Your task to perform on an android device: Search for vegetarian restaurants on Maps Image 0: 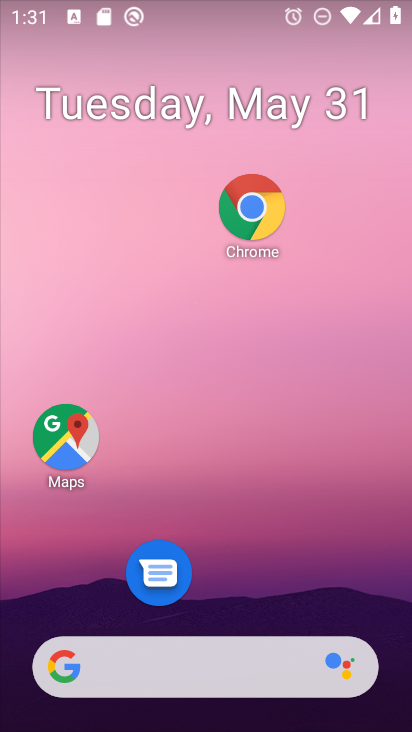
Step 0: drag from (255, 625) to (285, 329)
Your task to perform on an android device: Search for vegetarian restaurants on Maps Image 1: 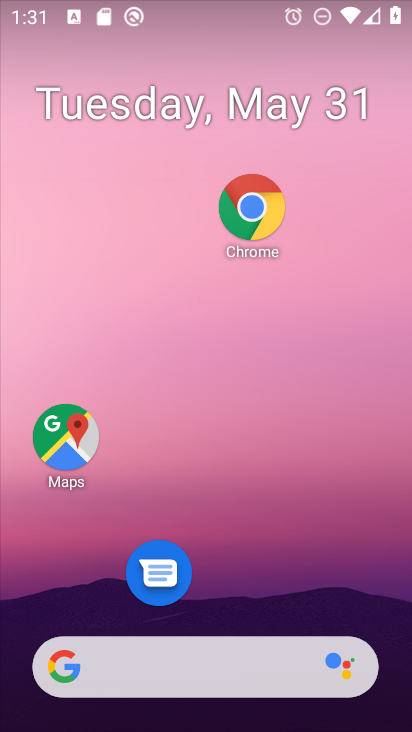
Step 1: drag from (261, 582) to (324, 138)
Your task to perform on an android device: Search for vegetarian restaurants on Maps Image 2: 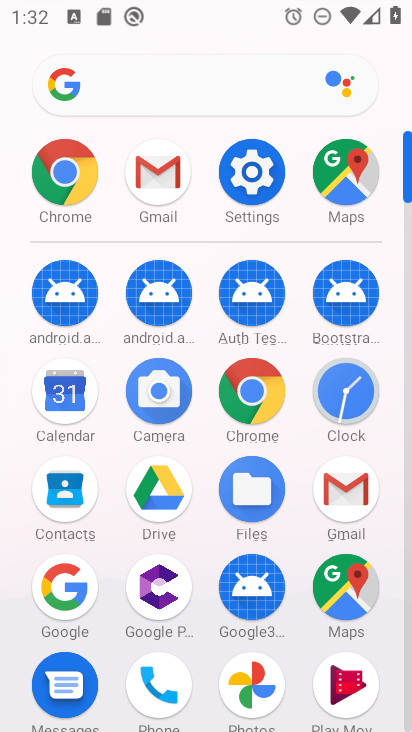
Step 2: click (353, 597)
Your task to perform on an android device: Search for vegetarian restaurants on Maps Image 3: 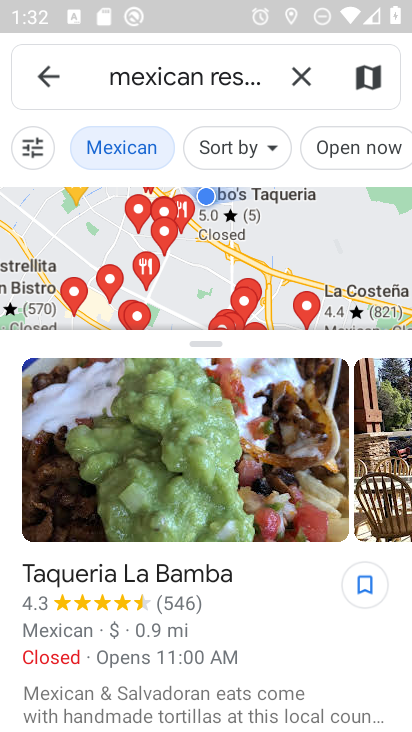
Step 3: click (304, 81)
Your task to perform on an android device: Search for vegetarian restaurants on Maps Image 4: 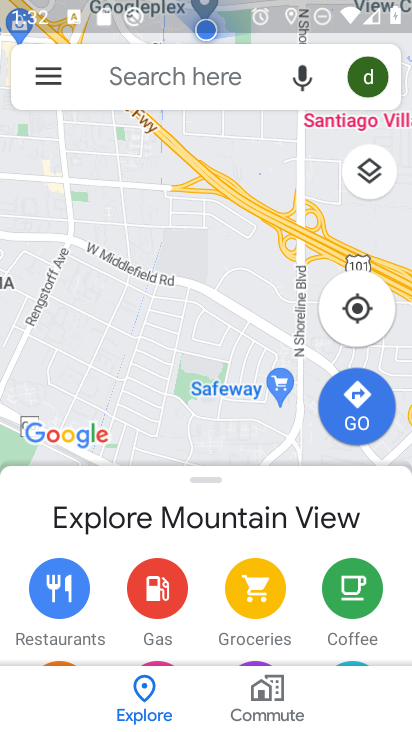
Step 4: click (183, 86)
Your task to perform on an android device: Search for vegetarian restaurants on Maps Image 5: 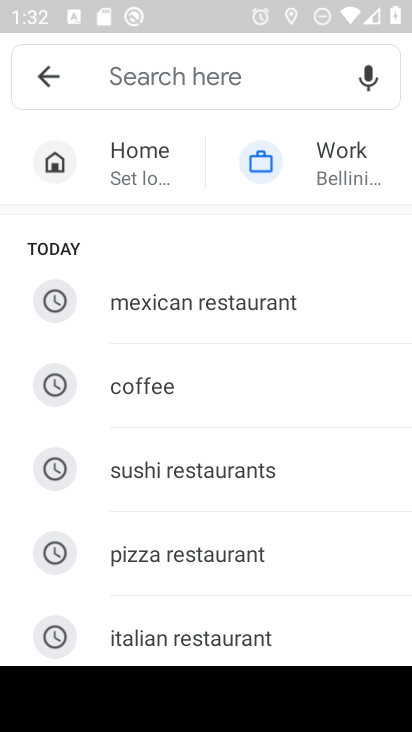
Step 5: drag from (231, 527) to (228, 147)
Your task to perform on an android device: Search for vegetarian restaurants on Maps Image 6: 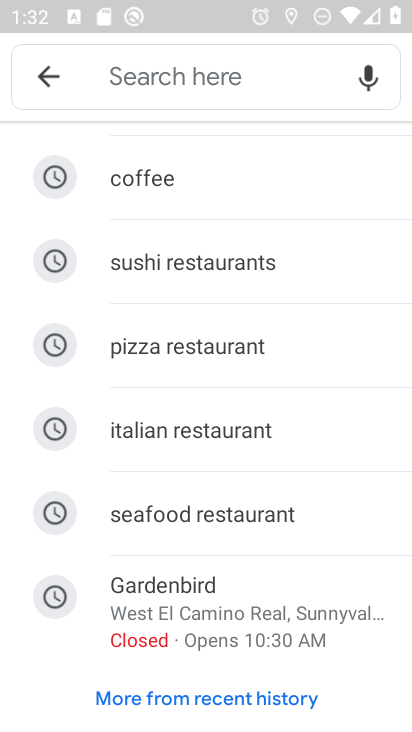
Step 6: drag from (154, 600) to (192, 323)
Your task to perform on an android device: Search for vegetarian restaurants on Maps Image 7: 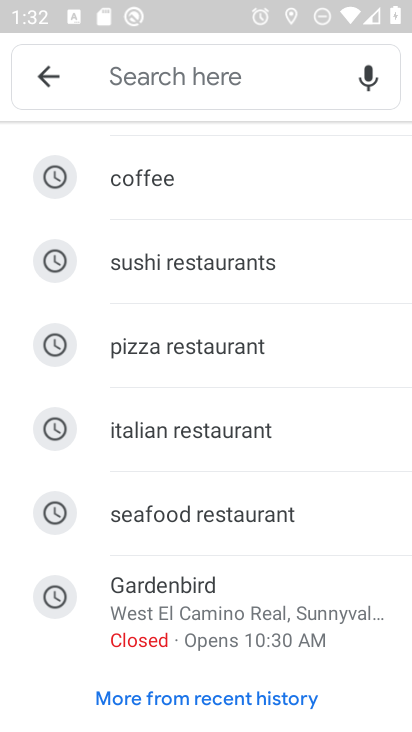
Step 7: drag from (169, 561) to (207, 287)
Your task to perform on an android device: Search for vegetarian restaurants on Maps Image 8: 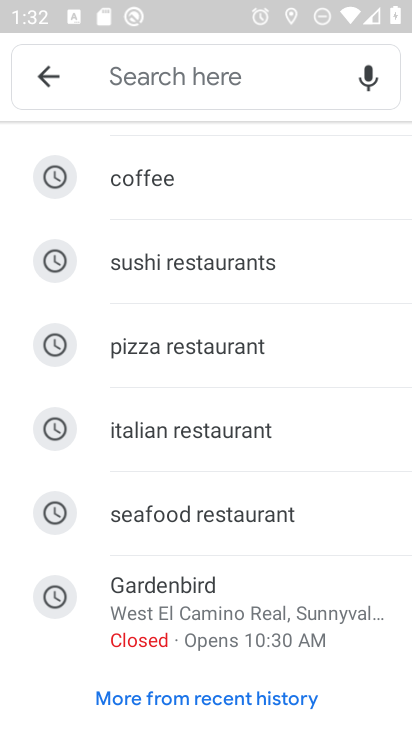
Step 8: drag from (217, 428) to (206, 728)
Your task to perform on an android device: Search for vegetarian restaurants on Maps Image 9: 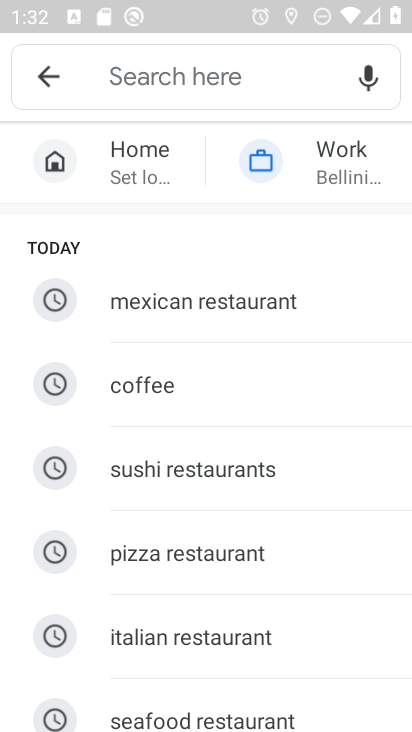
Step 9: click (201, 84)
Your task to perform on an android device: Search for vegetarian restaurants on Maps Image 10: 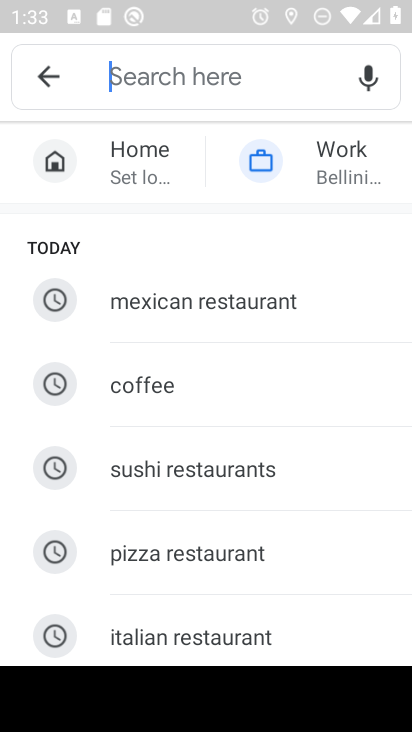
Step 10: type "vege"
Your task to perform on an android device: Search for vegetarian restaurants on Maps Image 11: 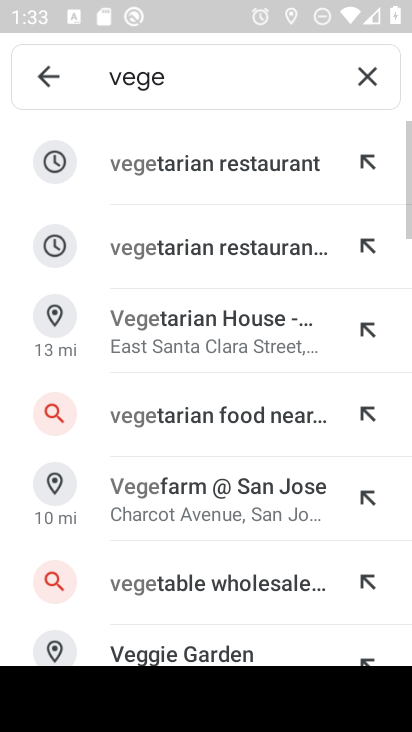
Step 11: click (291, 164)
Your task to perform on an android device: Search for vegetarian restaurants on Maps Image 12: 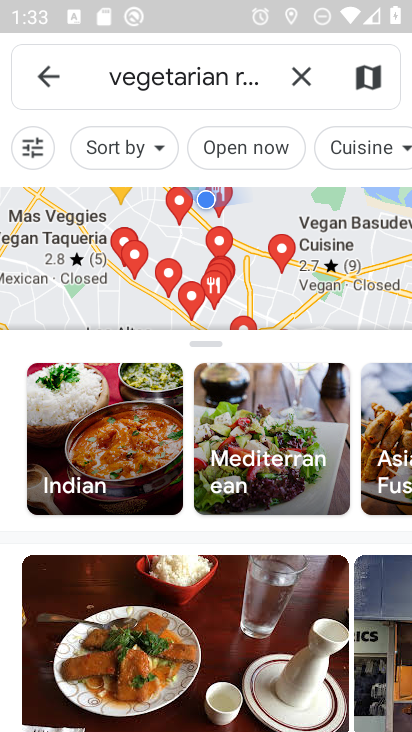
Step 12: task complete